Your task to perform on an android device: What is the news today? Image 0: 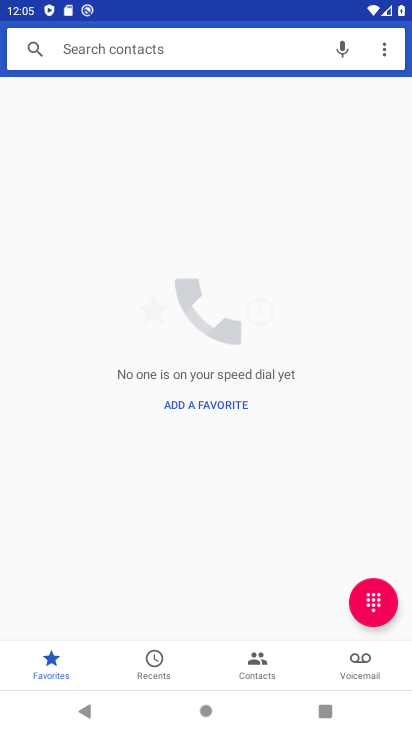
Step 0: press home button
Your task to perform on an android device: What is the news today? Image 1: 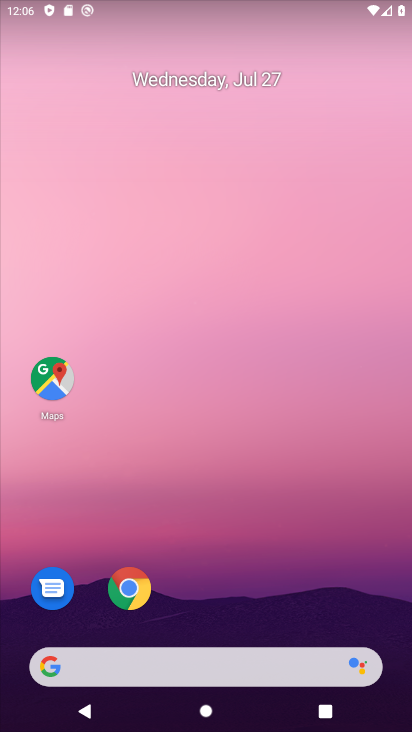
Step 1: click (101, 654)
Your task to perform on an android device: What is the news today? Image 2: 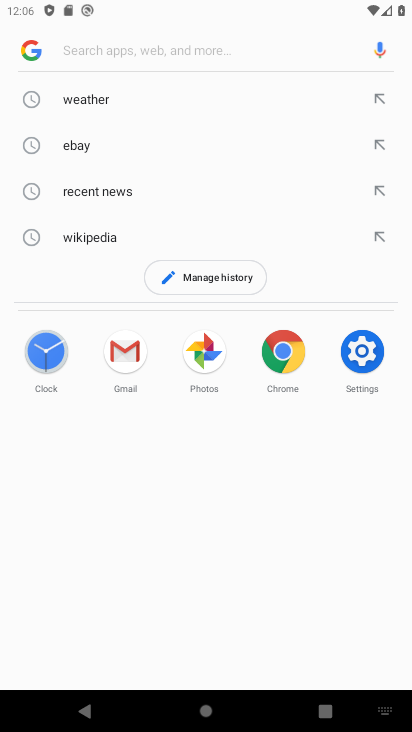
Step 2: type "What is the news today?"
Your task to perform on an android device: What is the news today? Image 3: 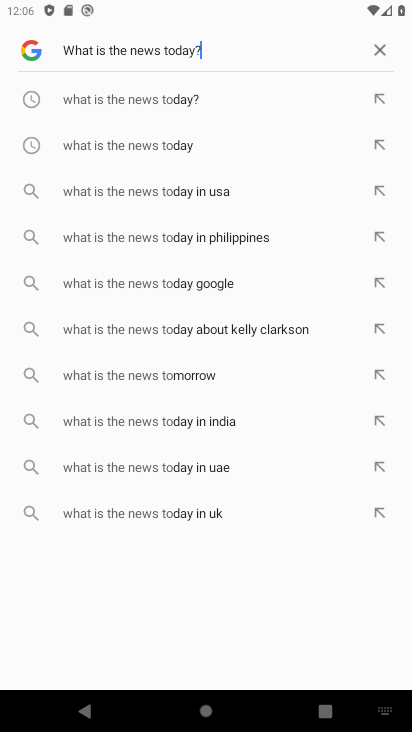
Step 3: type ""
Your task to perform on an android device: What is the news today? Image 4: 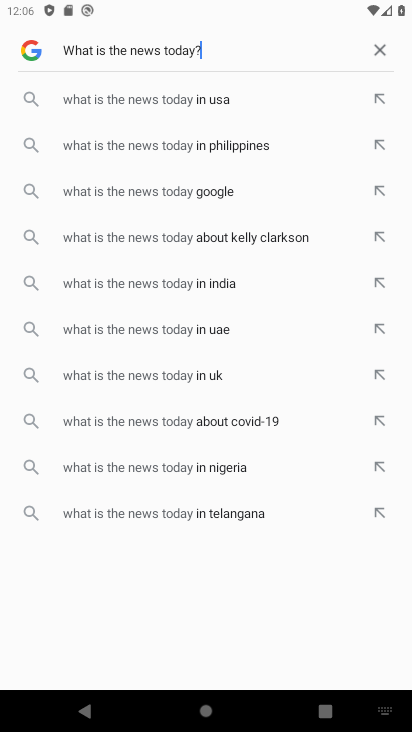
Step 4: type ""
Your task to perform on an android device: What is the news today? Image 5: 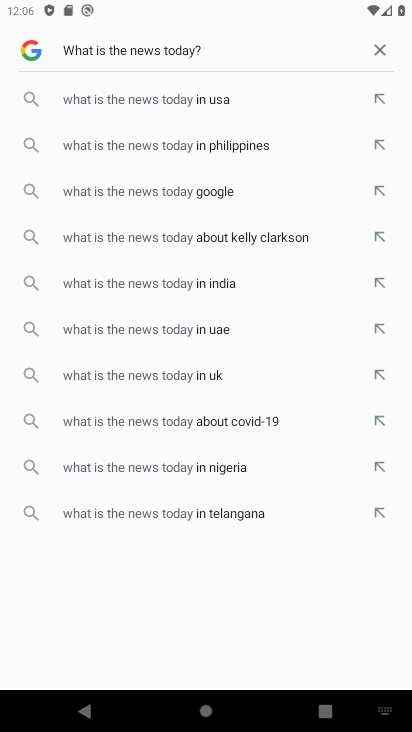
Step 5: type ""
Your task to perform on an android device: What is the news today? Image 6: 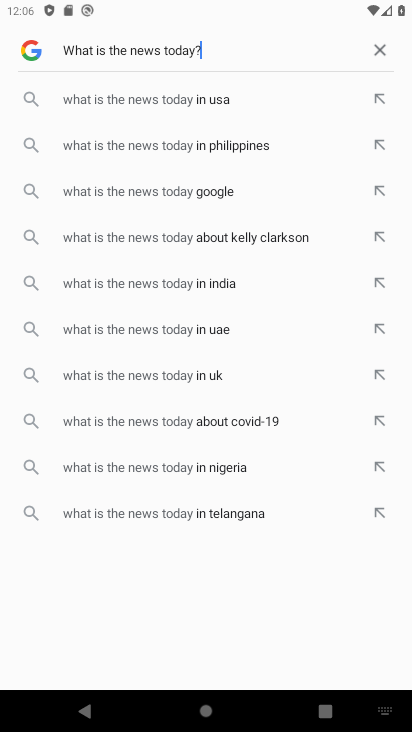
Step 6: task complete